Your task to perform on an android device: stop showing notifications on the lock screen Image 0: 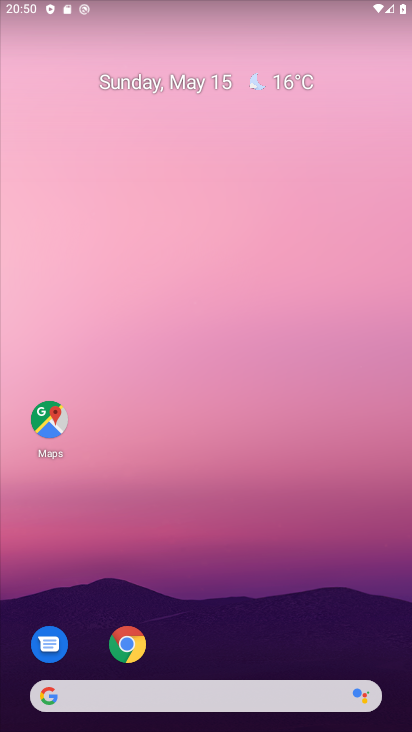
Step 0: drag from (230, 636) to (369, 96)
Your task to perform on an android device: stop showing notifications on the lock screen Image 1: 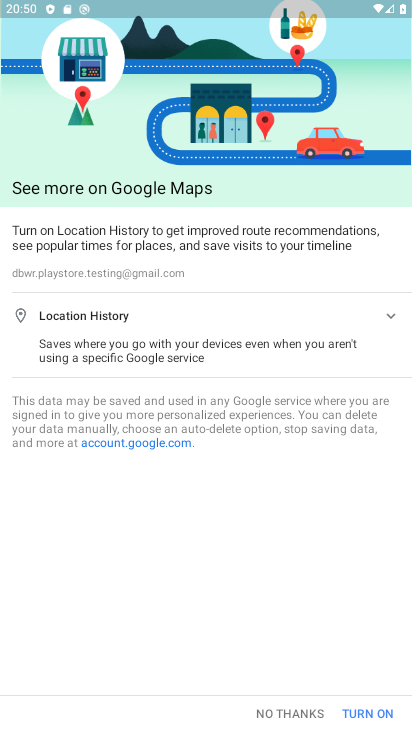
Step 1: press back button
Your task to perform on an android device: stop showing notifications on the lock screen Image 2: 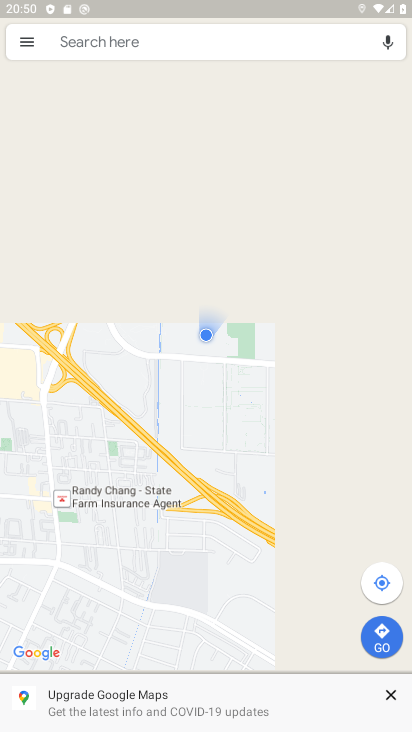
Step 2: press back button
Your task to perform on an android device: stop showing notifications on the lock screen Image 3: 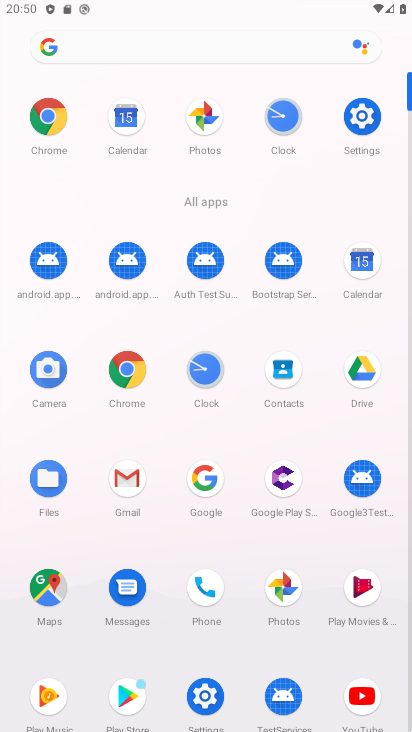
Step 3: click (359, 121)
Your task to perform on an android device: stop showing notifications on the lock screen Image 4: 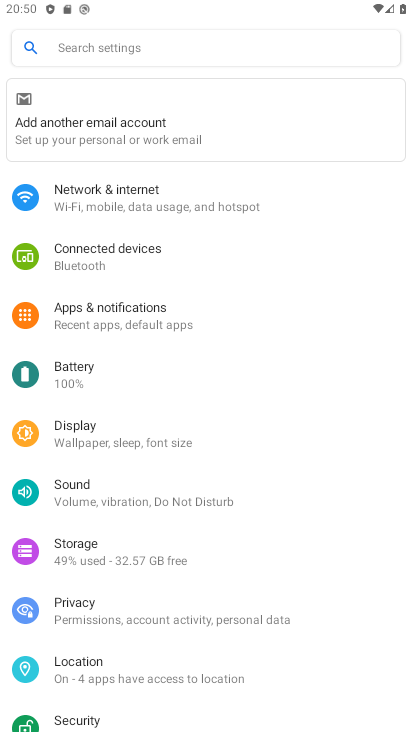
Step 4: click (91, 310)
Your task to perform on an android device: stop showing notifications on the lock screen Image 5: 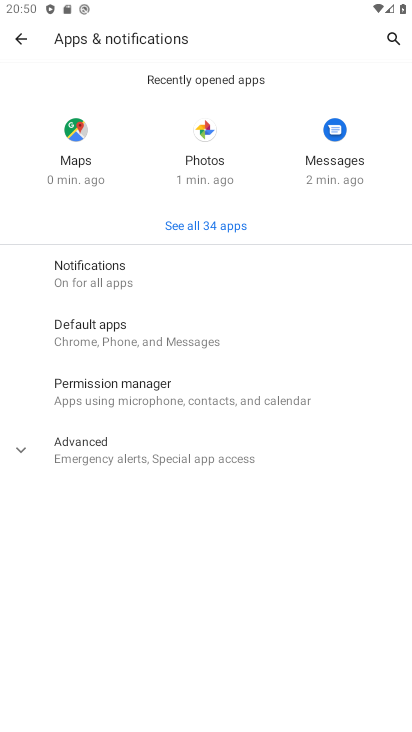
Step 5: click (141, 270)
Your task to perform on an android device: stop showing notifications on the lock screen Image 6: 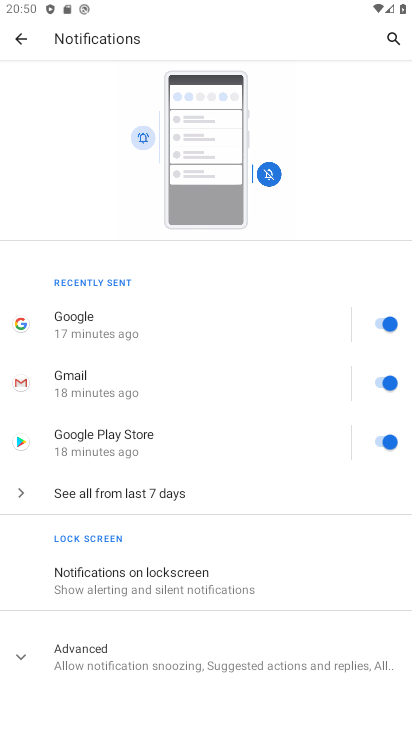
Step 6: click (133, 582)
Your task to perform on an android device: stop showing notifications on the lock screen Image 7: 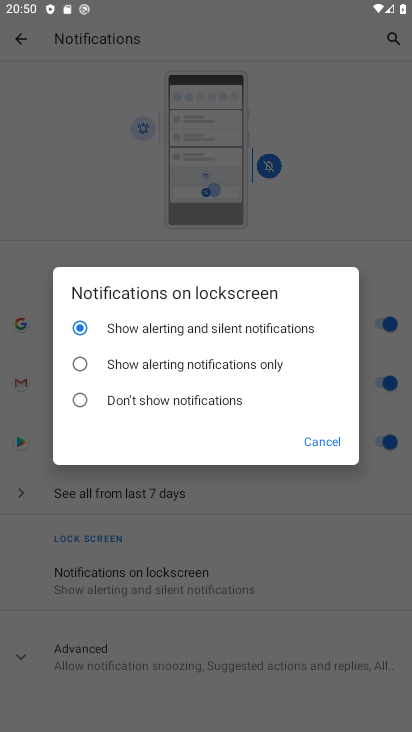
Step 7: click (81, 396)
Your task to perform on an android device: stop showing notifications on the lock screen Image 8: 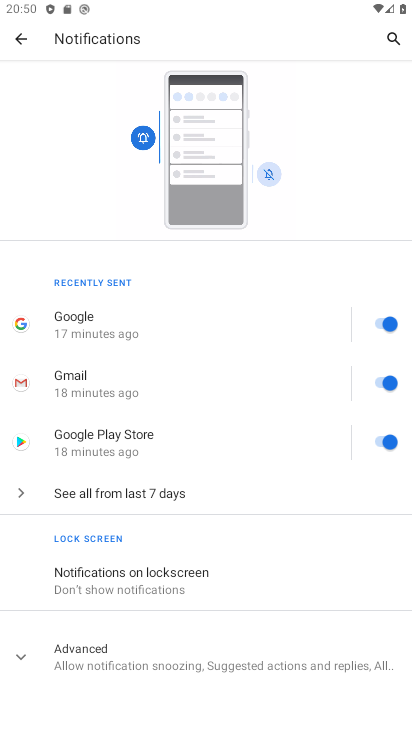
Step 8: task complete